Your task to perform on an android device: Open the web browser Image 0: 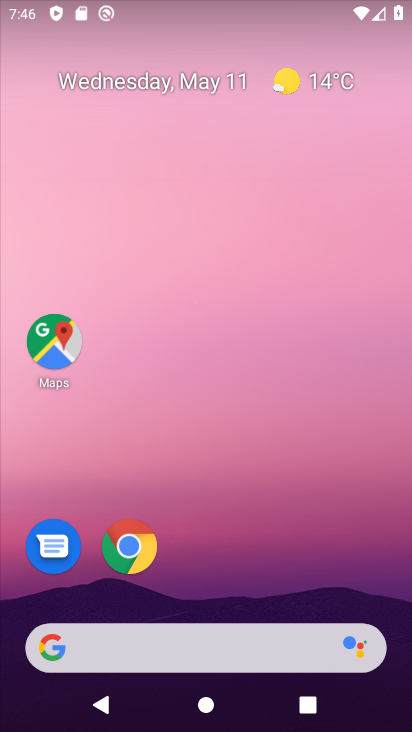
Step 0: click (128, 543)
Your task to perform on an android device: Open the web browser Image 1: 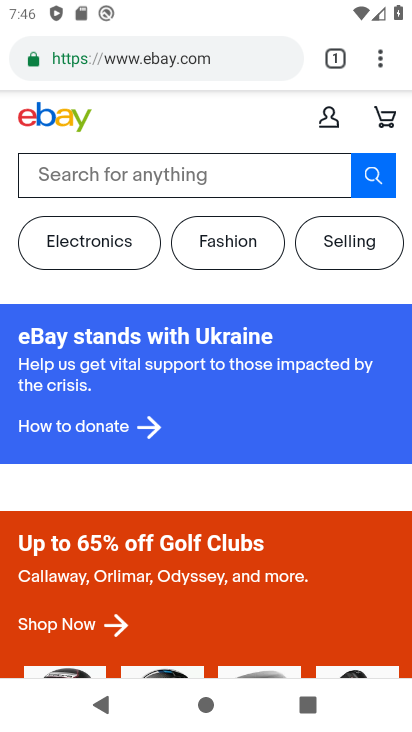
Step 1: task complete